Your task to perform on an android device: find snoozed emails in the gmail app Image 0: 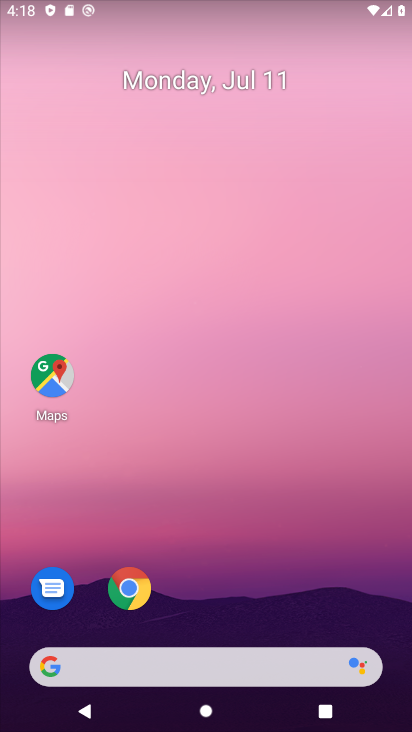
Step 0: drag from (283, 566) to (237, 240)
Your task to perform on an android device: find snoozed emails in the gmail app Image 1: 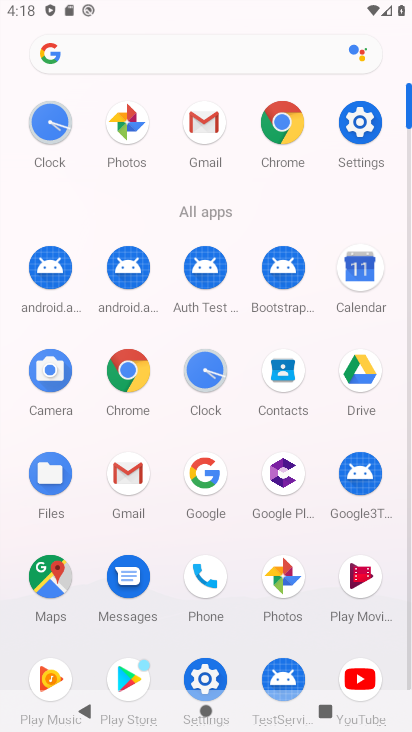
Step 1: click (124, 473)
Your task to perform on an android device: find snoozed emails in the gmail app Image 2: 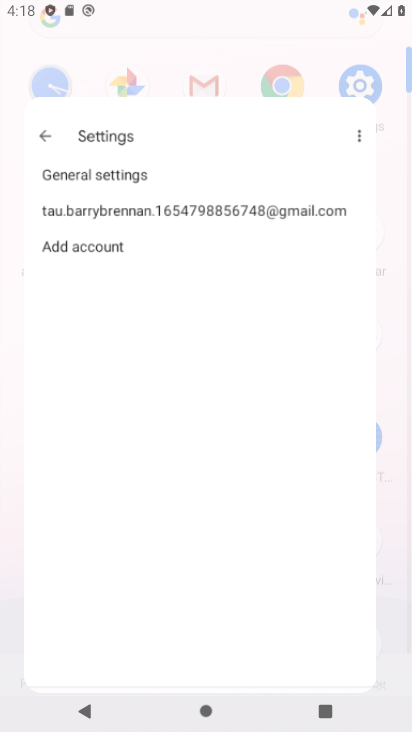
Step 2: click (131, 473)
Your task to perform on an android device: find snoozed emails in the gmail app Image 3: 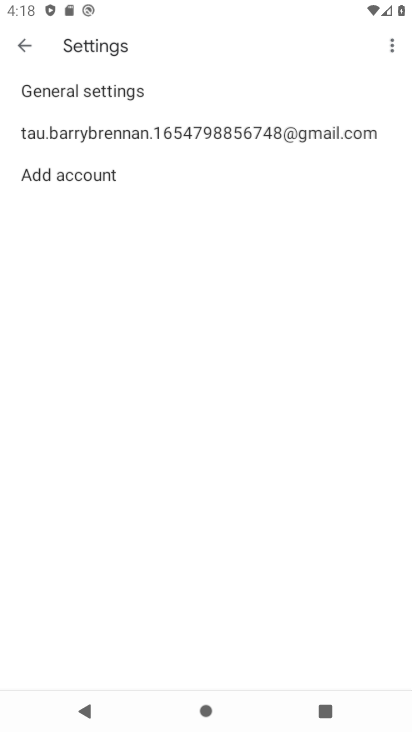
Step 3: click (132, 473)
Your task to perform on an android device: find snoozed emails in the gmail app Image 4: 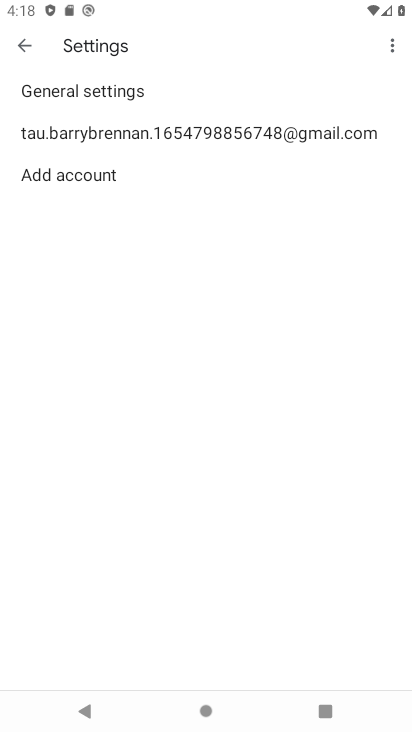
Step 4: click (24, 45)
Your task to perform on an android device: find snoozed emails in the gmail app Image 5: 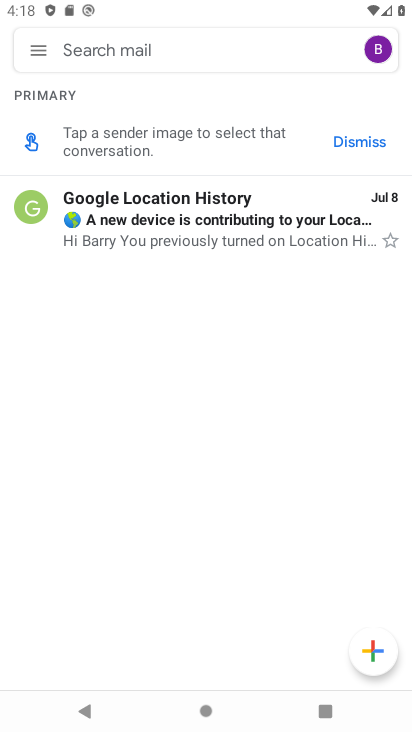
Step 5: click (36, 54)
Your task to perform on an android device: find snoozed emails in the gmail app Image 6: 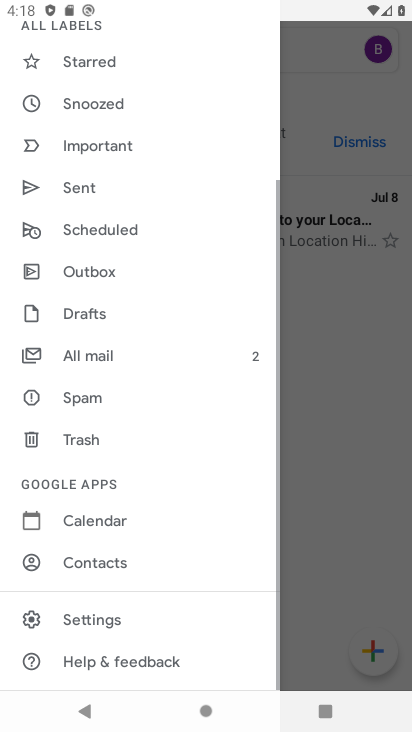
Step 6: click (96, 107)
Your task to perform on an android device: find snoozed emails in the gmail app Image 7: 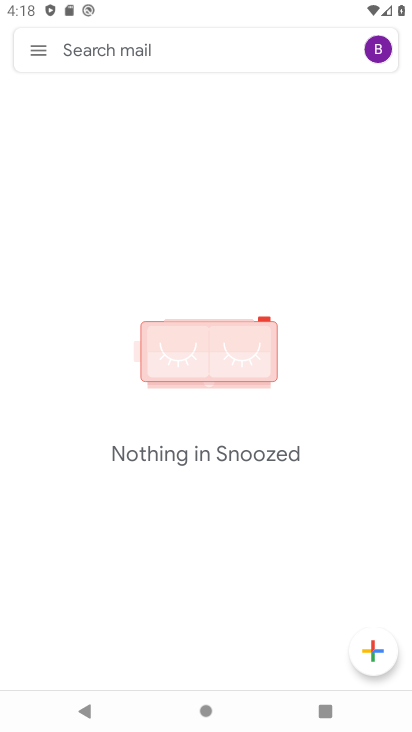
Step 7: task complete